Your task to perform on an android device: delete the emails in spam in the gmail app Image 0: 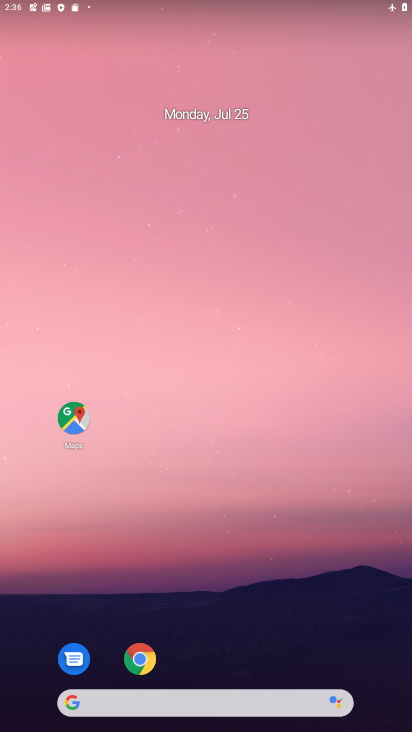
Step 0: drag from (214, 699) to (235, 96)
Your task to perform on an android device: delete the emails in spam in the gmail app Image 1: 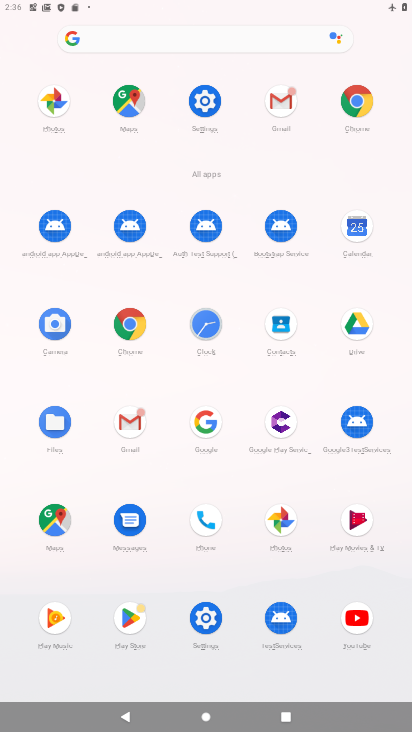
Step 1: click (127, 417)
Your task to perform on an android device: delete the emails in spam in the gmail app Image 2: 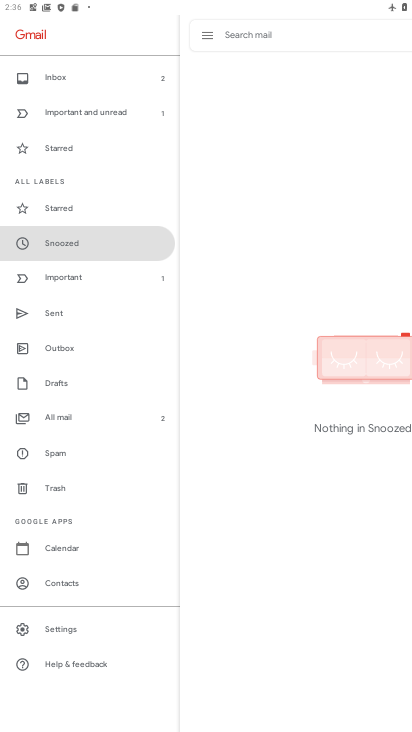
Step 2: click (63, 448)
Your task to perform on an android device: delete the emails in spam in the gmail app Image 3: 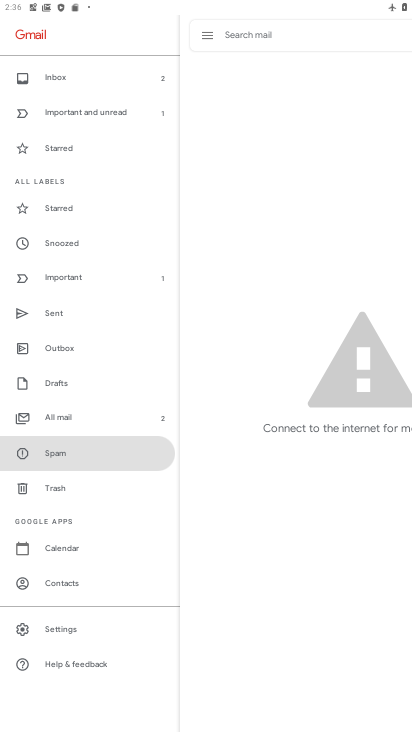
Step 3: task complete